Your task to perform on an android device: install app "Fetch Rewards" Image 0: 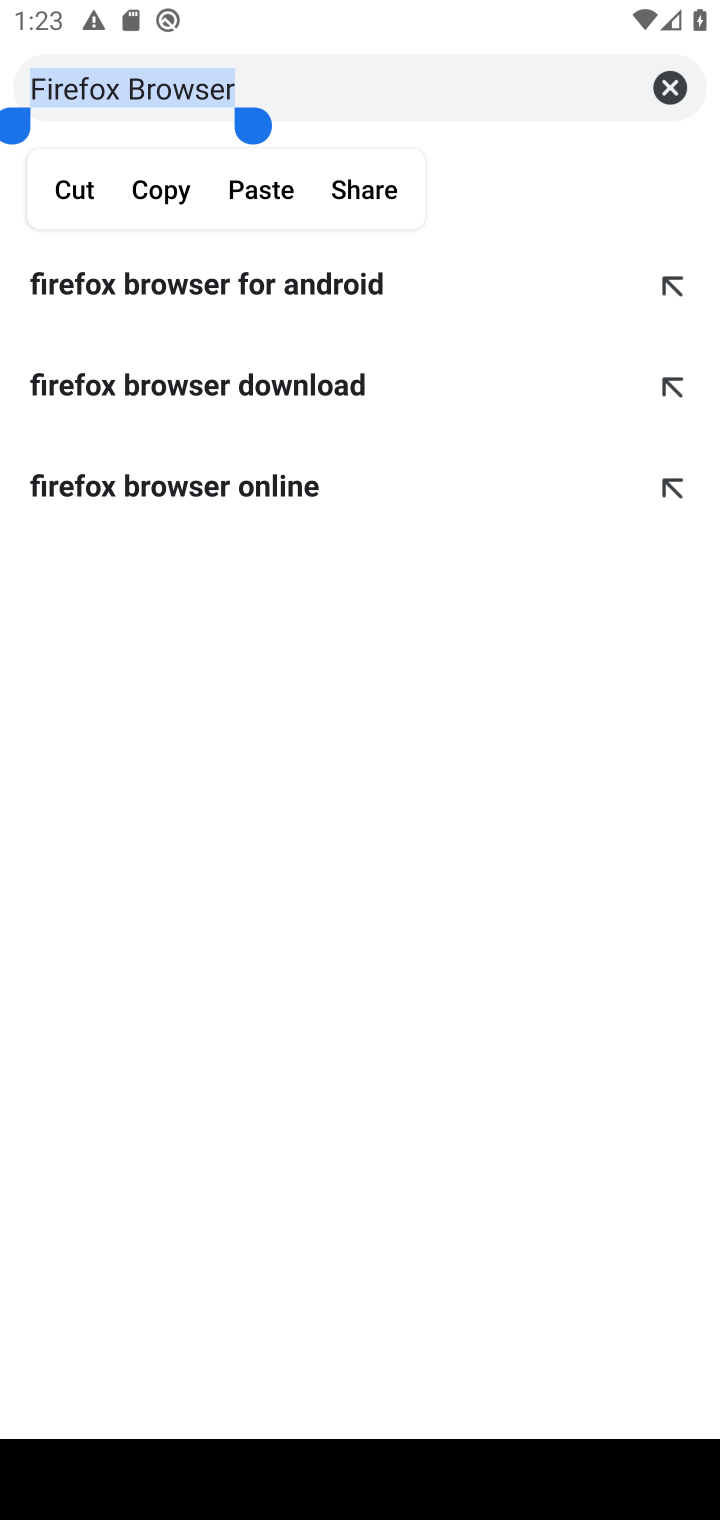
Step 0: press home button
Your task to perform on an android device: install app "Fetch Rewards" Image 1: 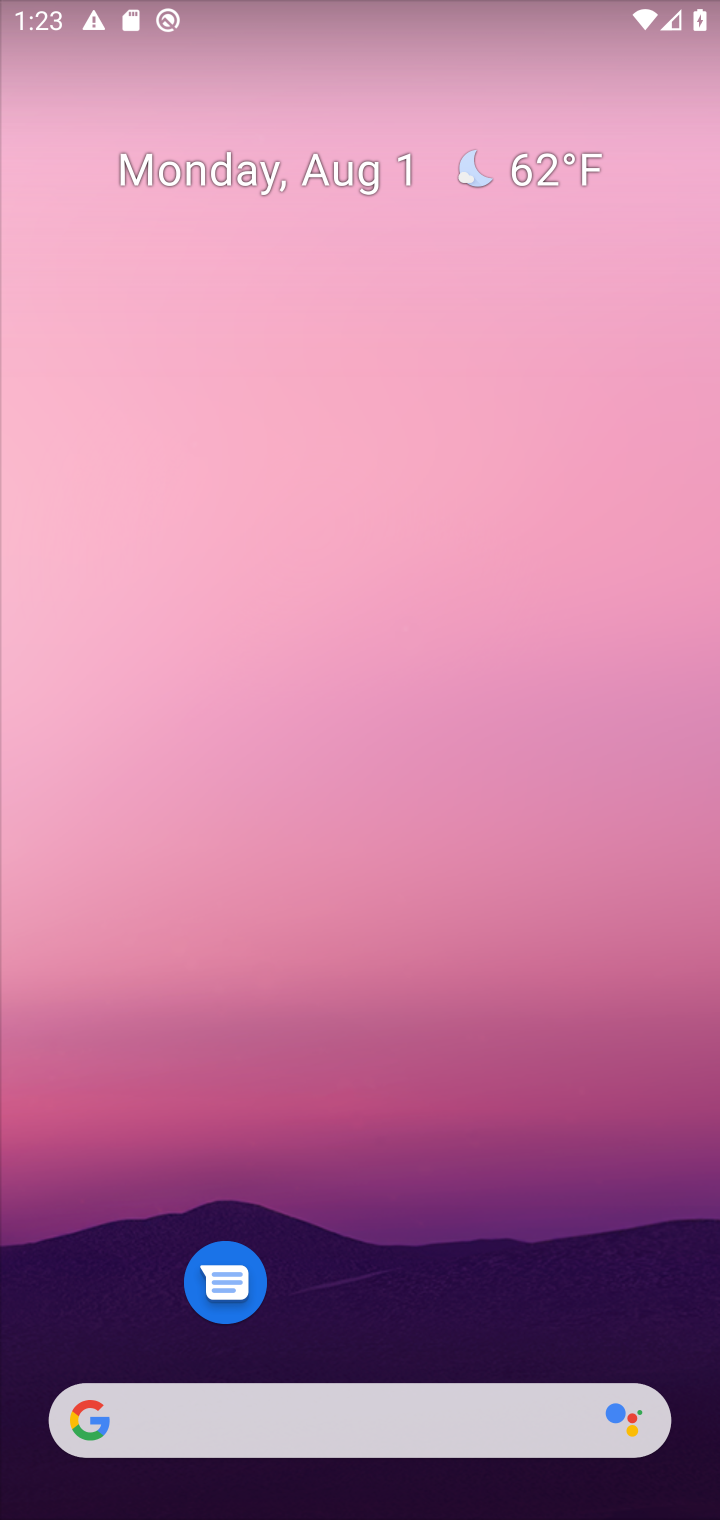
Step 1: drag from (357, 1333) to (409, 0)
Your task to perform on an android device: install app "Fetch Rewards" Image 2: 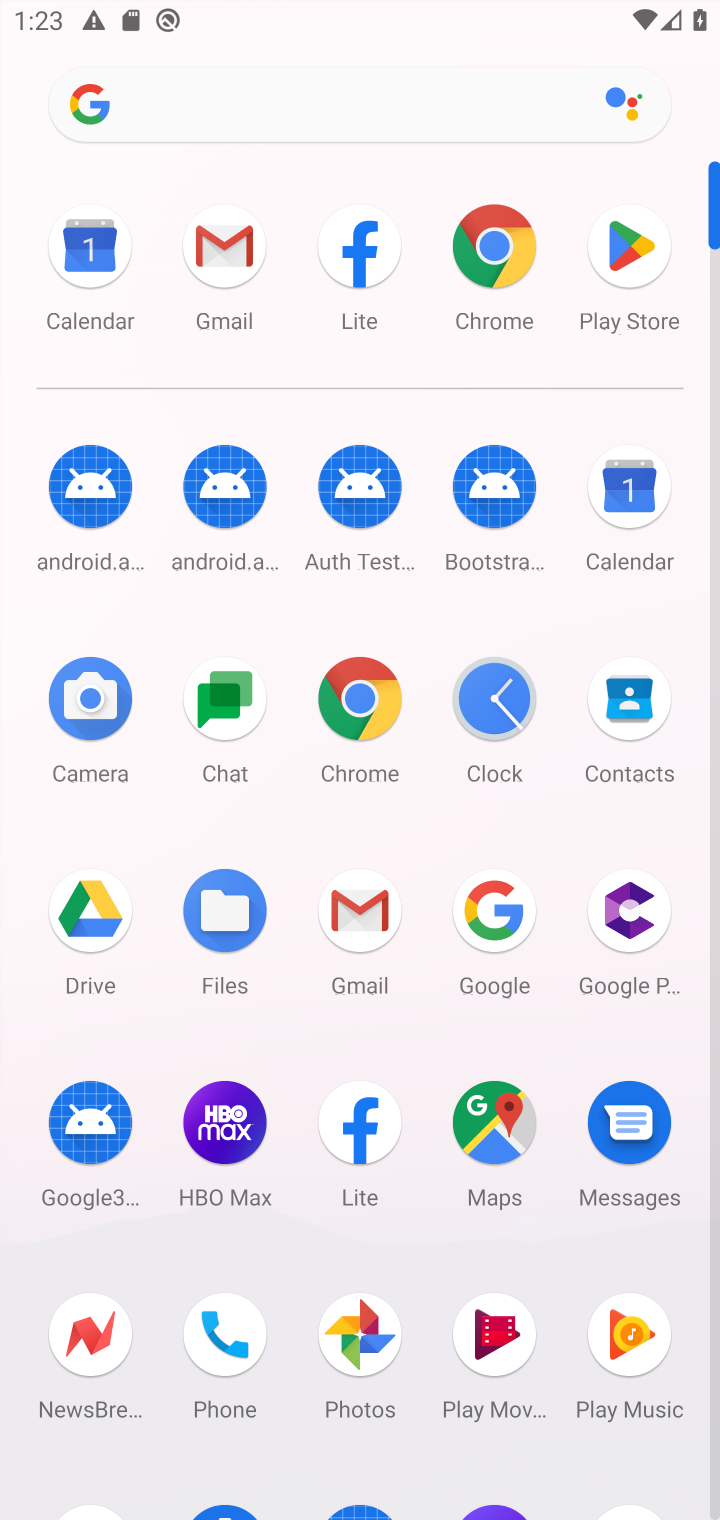
Step 2: click (618, 258)
Your task to perform on an android device: install app "Fetch Rewards" Image 3: 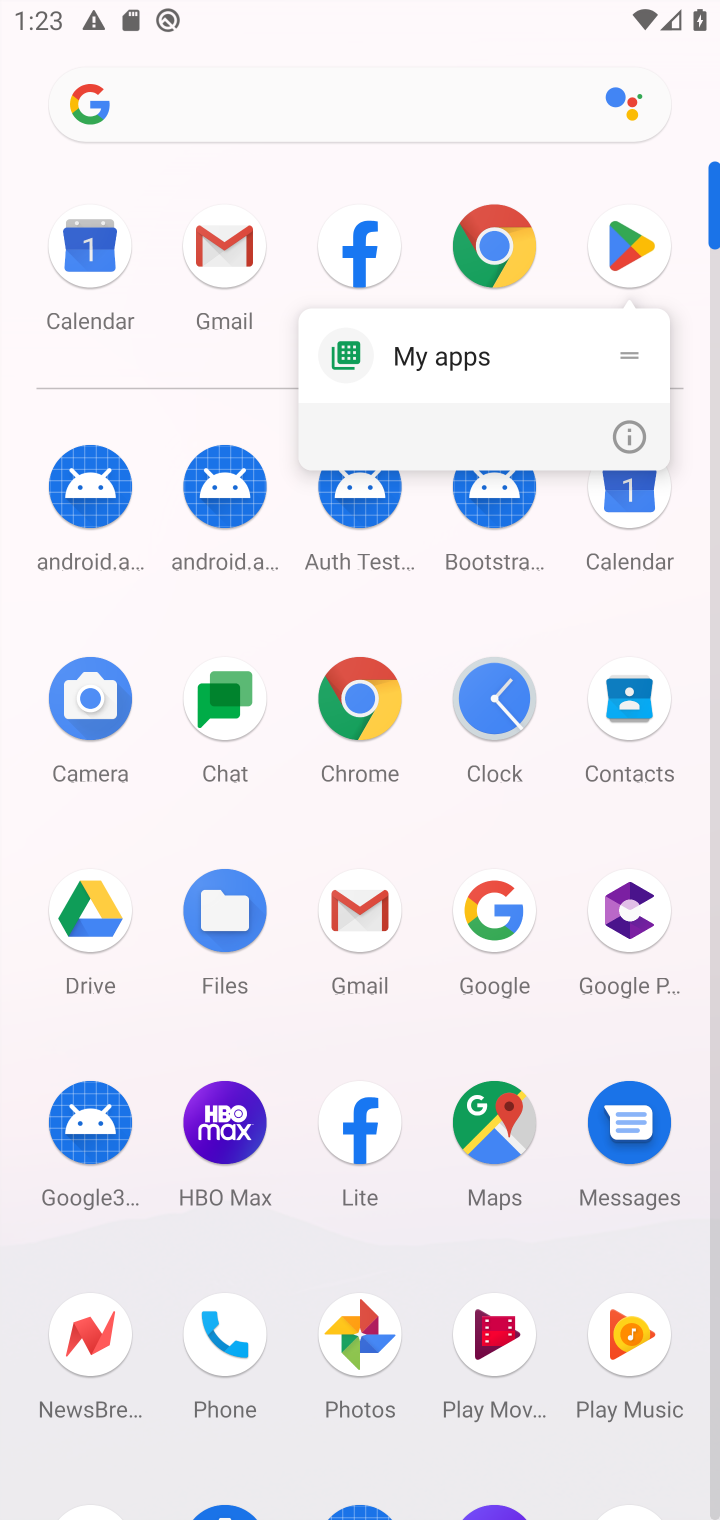
Step 3: click (622, 256)
Your task to perform on an android device: install app "Fetch Rewards" Image 4: 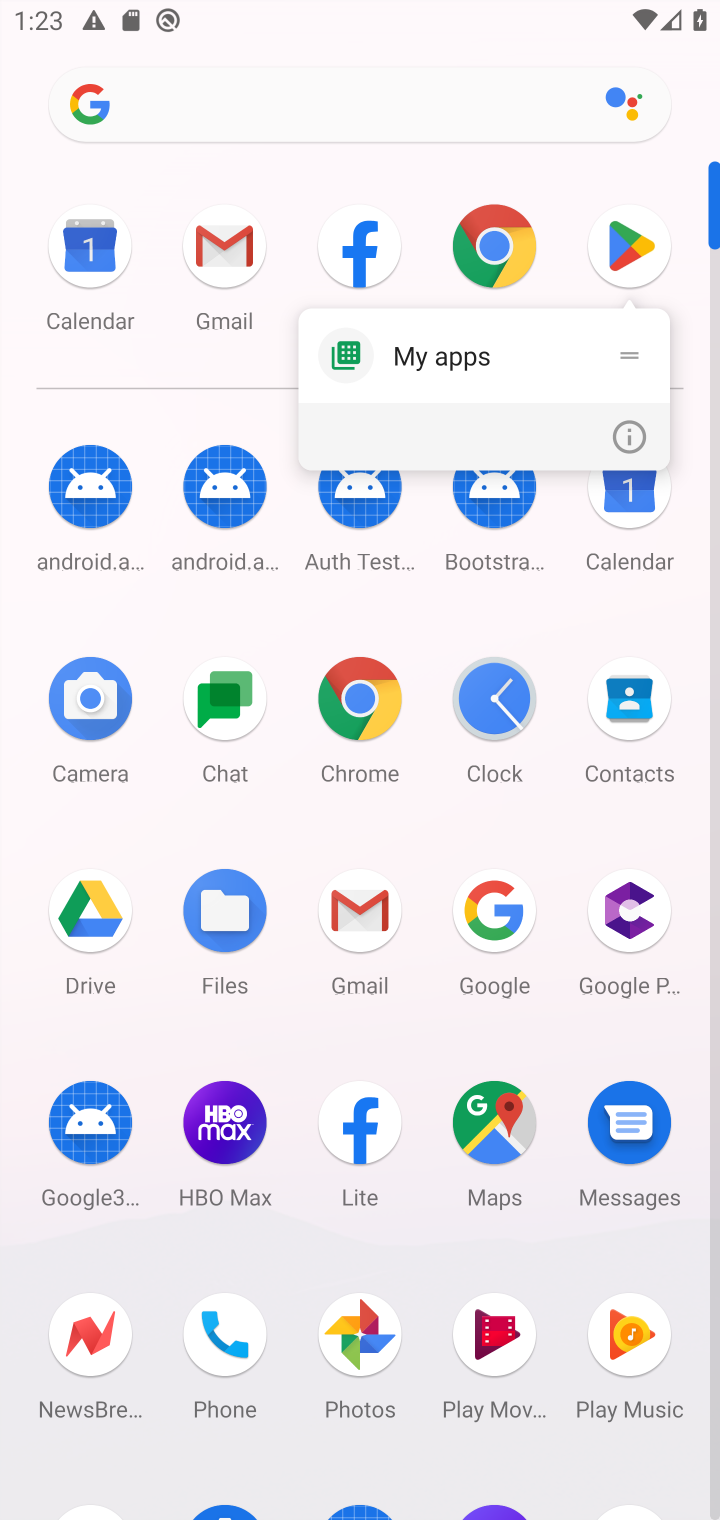
Step 4: click (624, 256)
Your task to perform on an android device: install app "Fetch Rewards" Image 5: 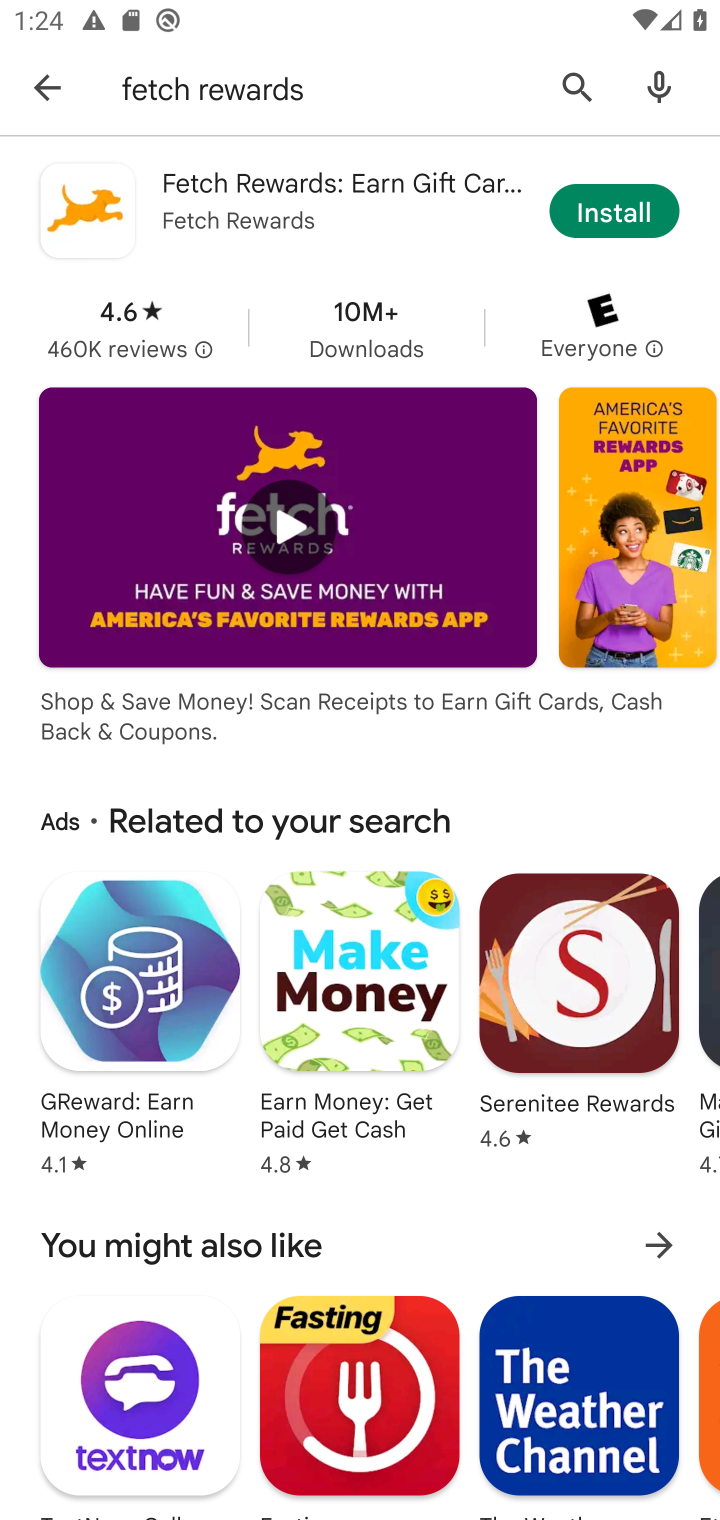
Step 5: click (649, 213)
Your task to perform on an android device: install app "Fetch Rewards" Image 6: 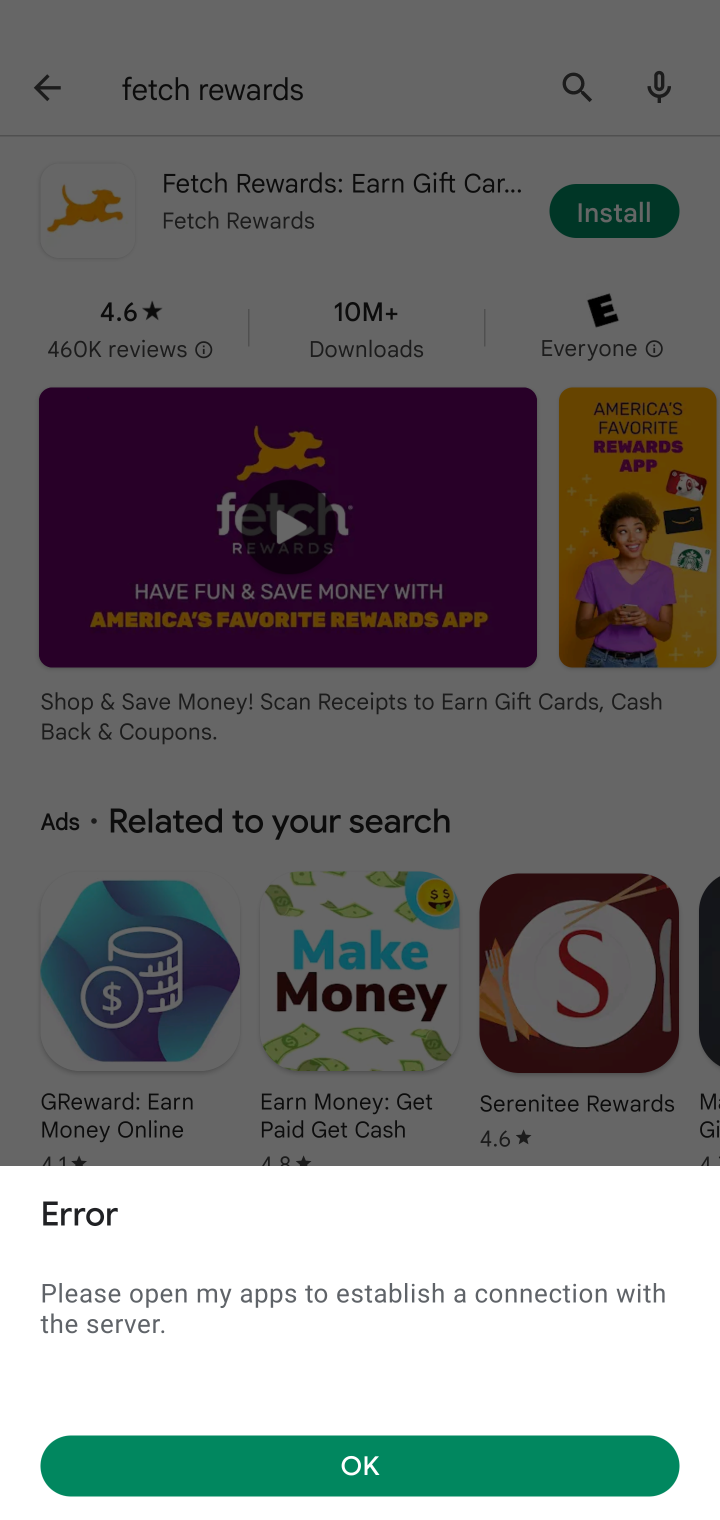
Step 6: click (311, 1430)
Your task to perform on an android device: install app "Fetch Rewards" Image 7: 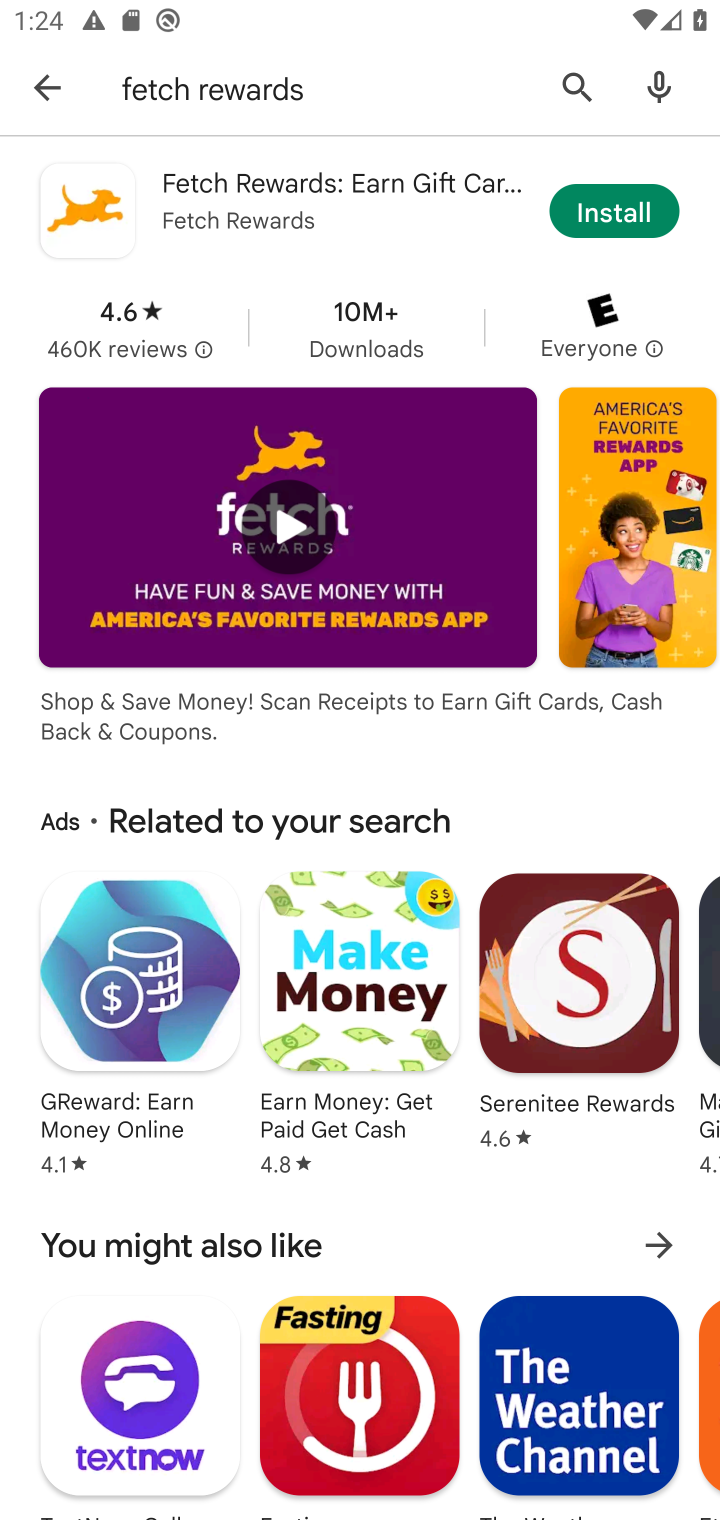
Step 7: click (632, 234)
Your task to perform on an android device: install app "Fetch Rewards" Image 8: 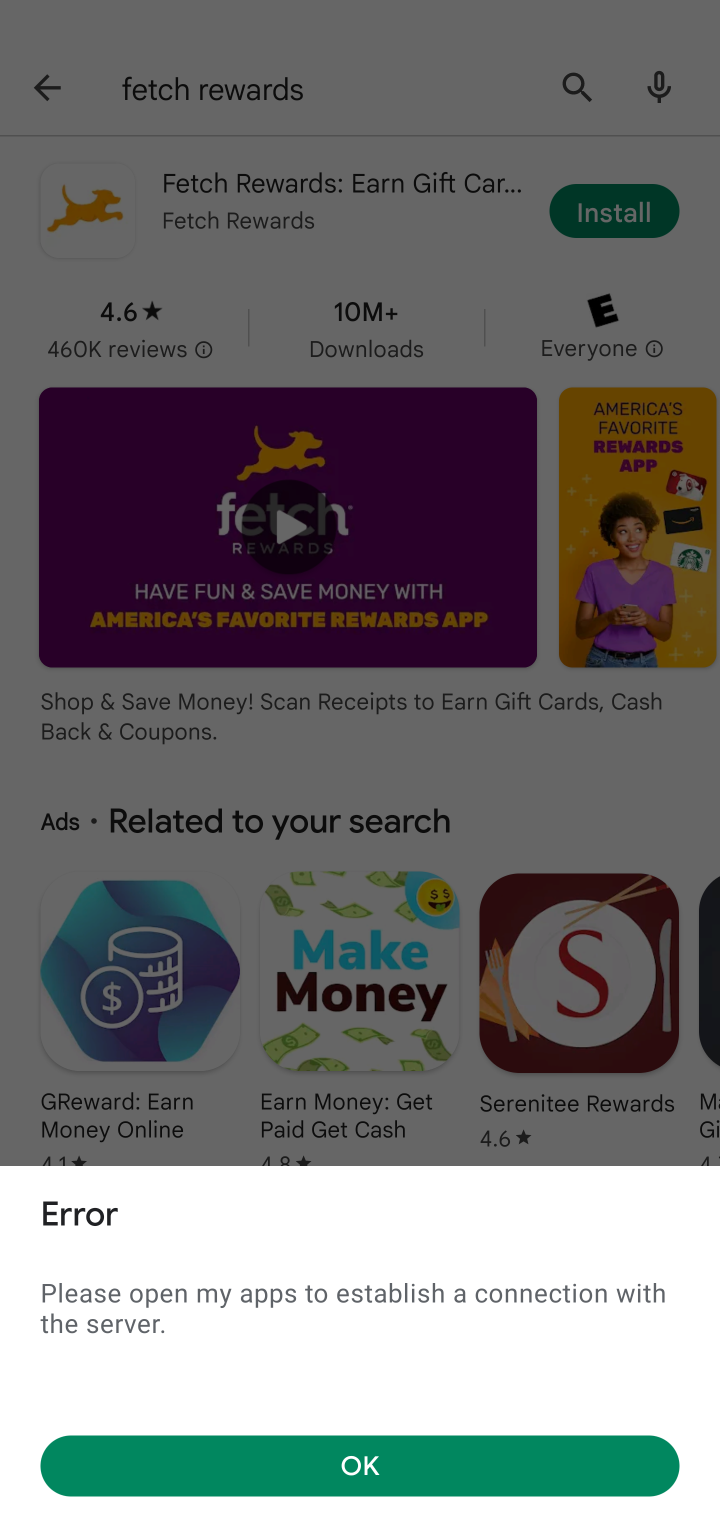
Step 8: task complete